Your task to perform on an android device: change timer sound Image 0: 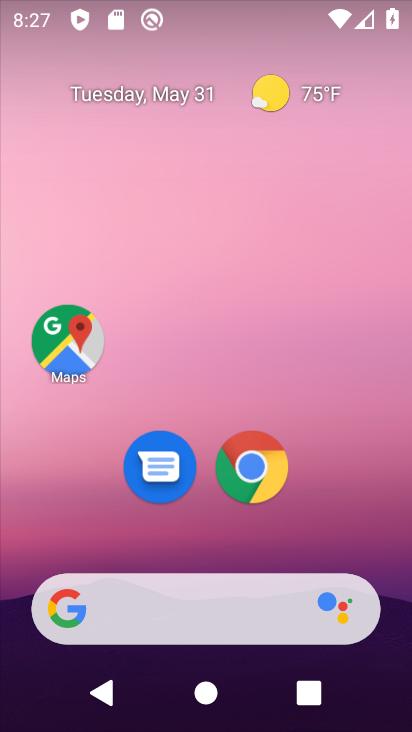
Step 0: drag from (201, 494) to (350, 78)
Your task to perform on an android device: change timer sound Image 1: 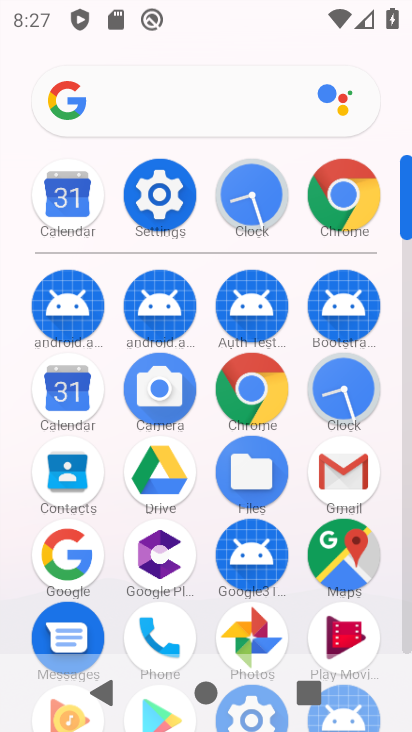
Step 1: click (364, 371)
Your task to perform on an android device: change timer sound Image 2: 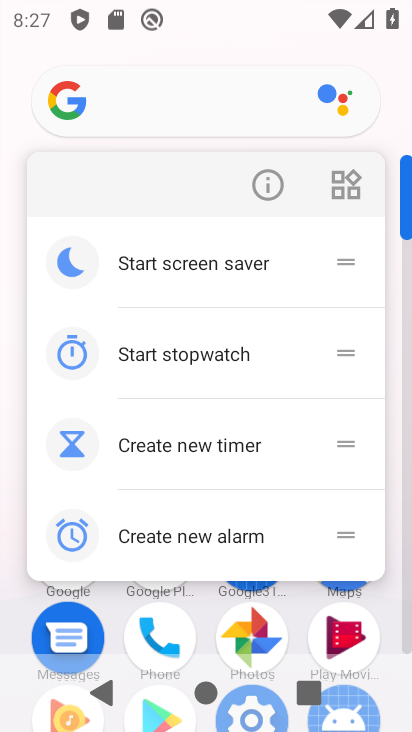
Step 2: click (264, 192)
Your task to perform on an android device: change timer sound Image 3: 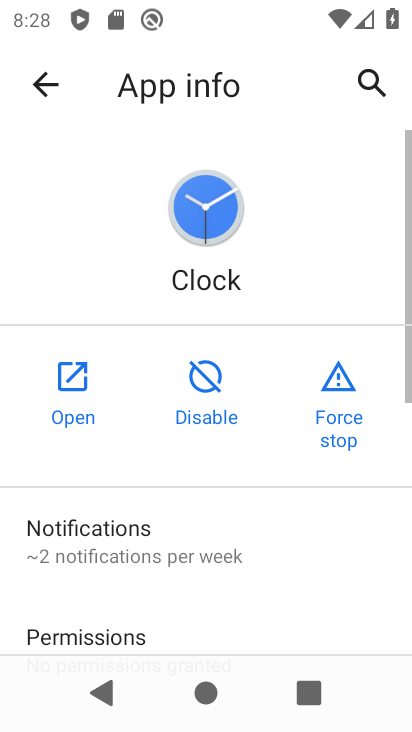
Step 3: click (55, 383)
Your task to perform on an android device: change timer sound Image 4: 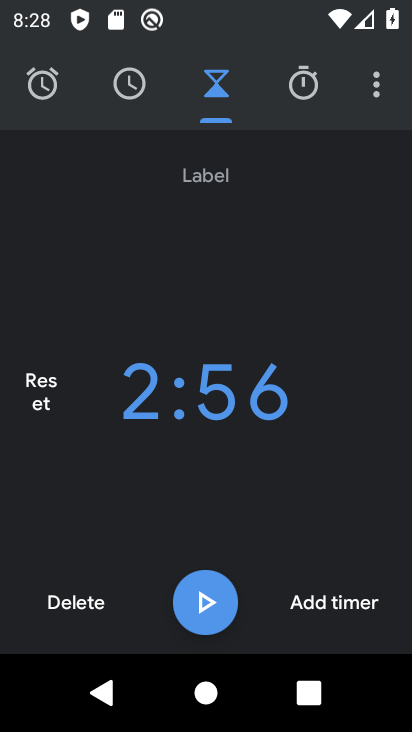
Step 4: drag from (389, 79) to (235, 167)
Your task to perform on an android device: change timer sound Image 5: 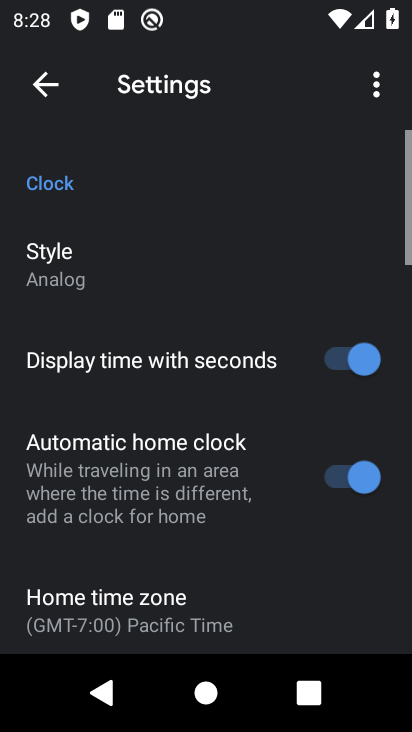
Step 5: drag from (195, 508) to (234, 26)
Your task to perform on an android device: change timer sound Image 6: 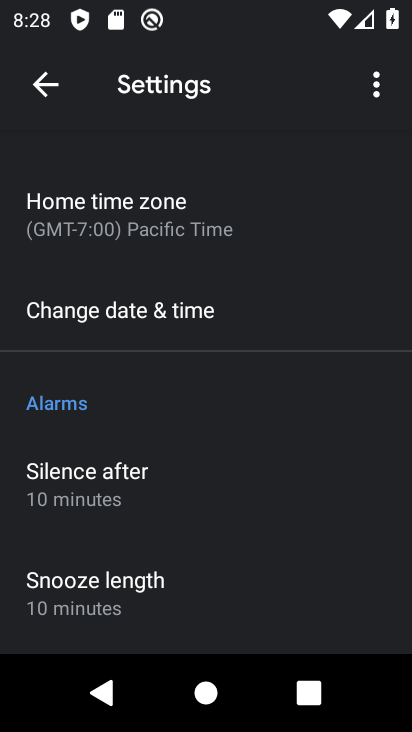
Step 6: drag from (168, 502) to (231, 106)
Your task to perform on an android device: change timer sound Image 7: 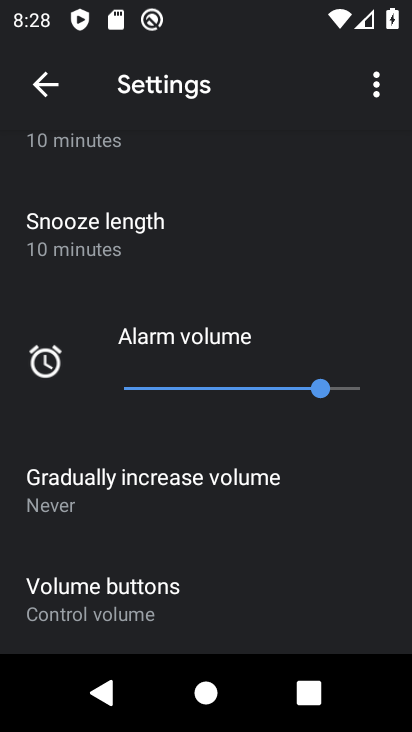
Step 7: drag from (178, 580) to (219, 153)
Your task to perform on an android device: change timer sound Image 8: 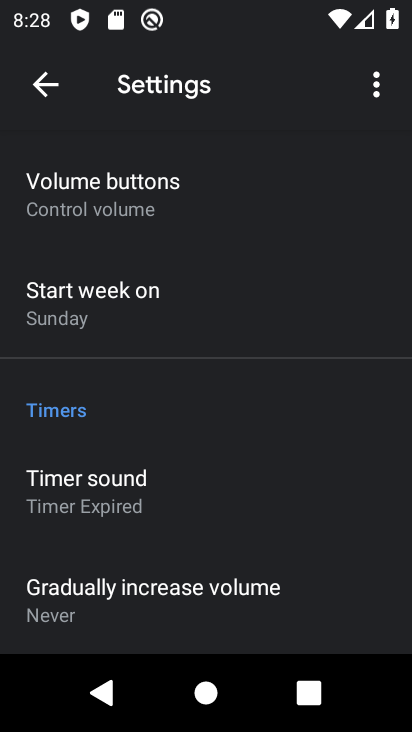
Step 8: click (110, 495)
Your task to perform on an android device: change timer sound Image 9: 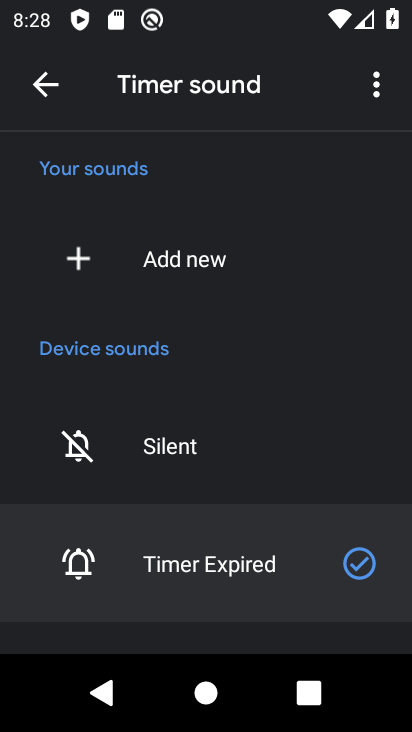
Step 9: drag from (248, 469) to (295, 147)
Your task to perform on an android device: change timer sound Image 10: 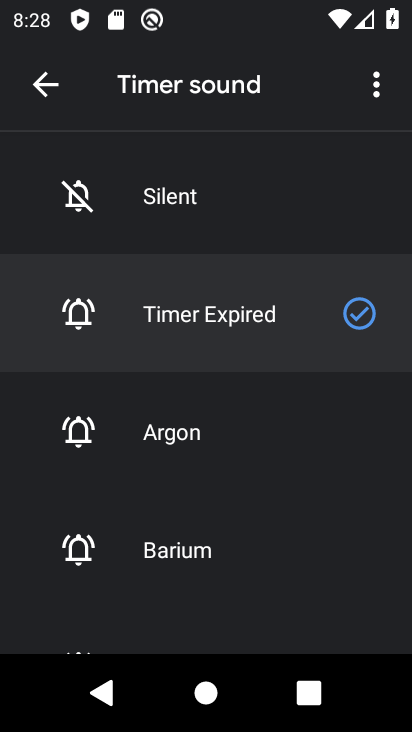
Step 10: click (263, 434)
Your task to perform on an android device: change timer sound Image 11: 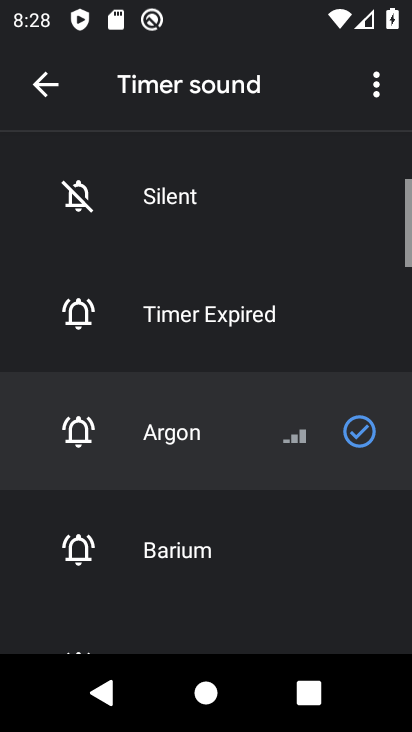
Step 11: task complete